Your task to perform on an android device: toggle data saver in the chrome app Image 0: 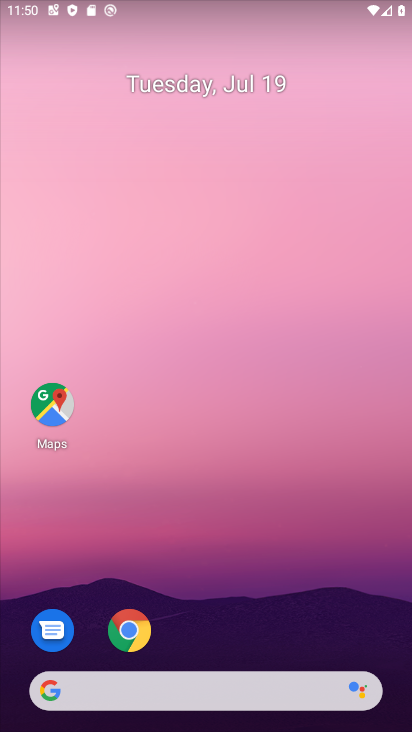
Step 0: drag from (265, 647) to (184, 21)
Your task to perform on an android device: toggle data saver in the chrome app Image 1: 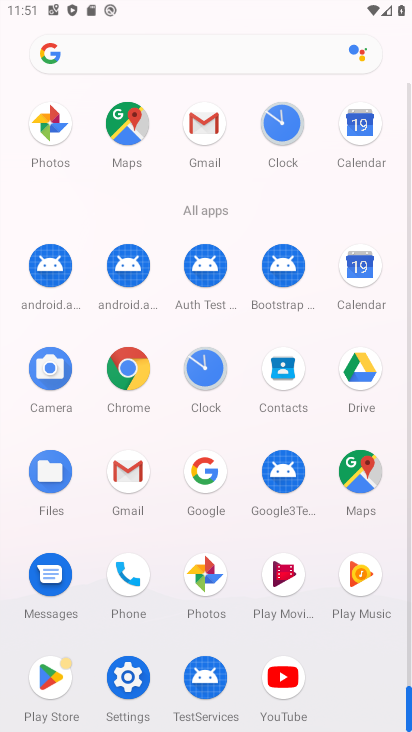
Step 1: click (136, 365)
Your task to perform on an android device: toggle data saver in the chrome app Image 2: 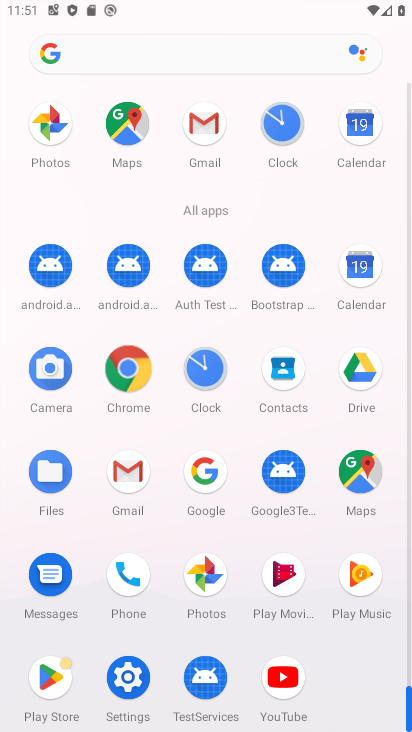
Step 2: click (136, 365)
Your task to perform on an android device: toggle data saver in the chrome app Image 3: 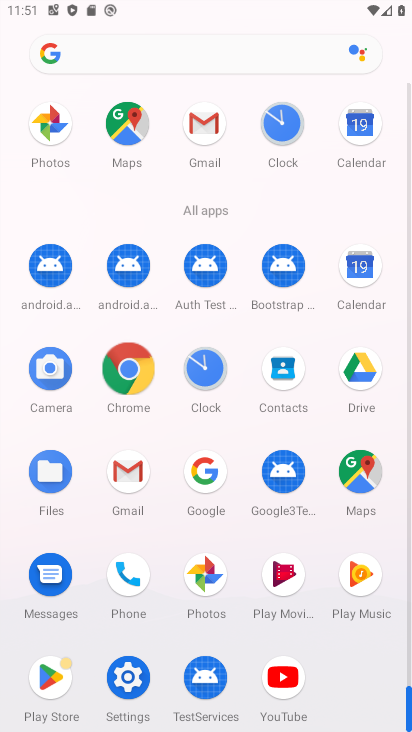
Step 3: click (136, 365)
Your task to perform on an android device: toggle data saver in the chrome app Image 4: 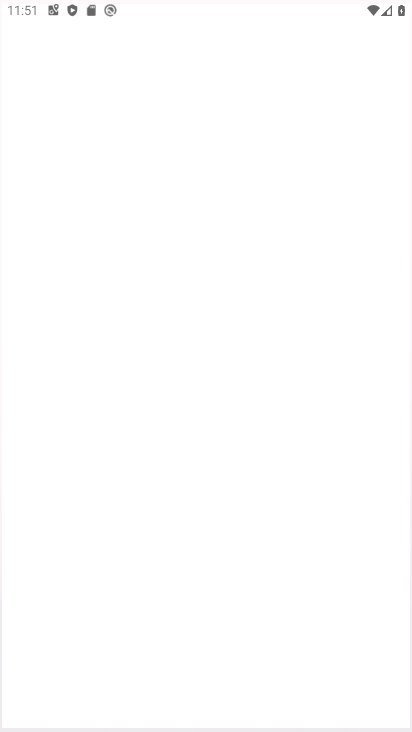
Step 4: click (135, 365)
Your task to perform on an android device: toggle data saver in the chrome app Image 5: 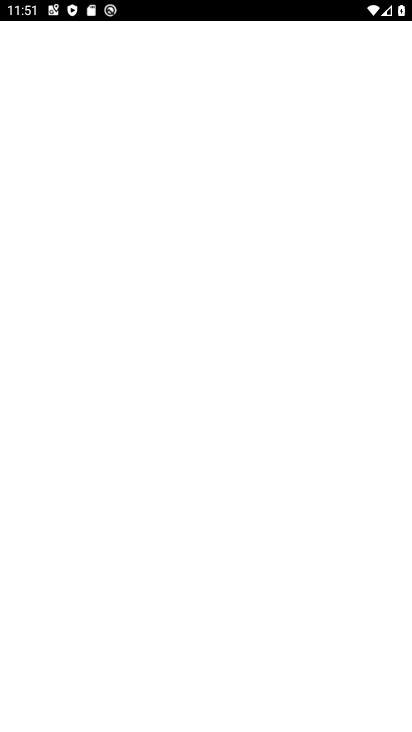
Step 5: click (135, 364)
Your task to perform on an android device: toggle data saver in the chrome app Image 6: 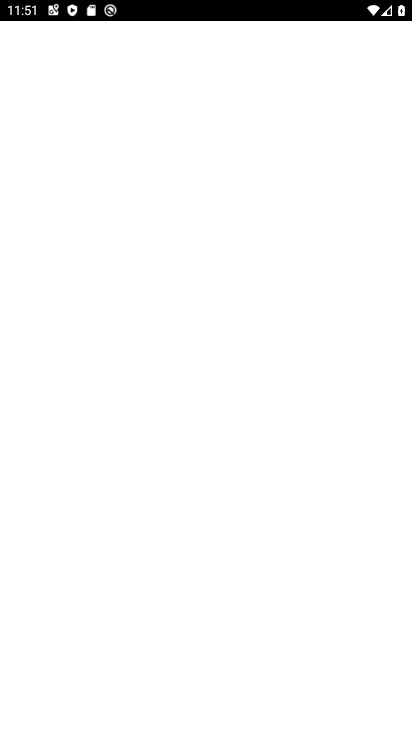
Step 6: click (139, 356)
Your task to perform on an android device: toggle data saver in the chrome app Image 7: 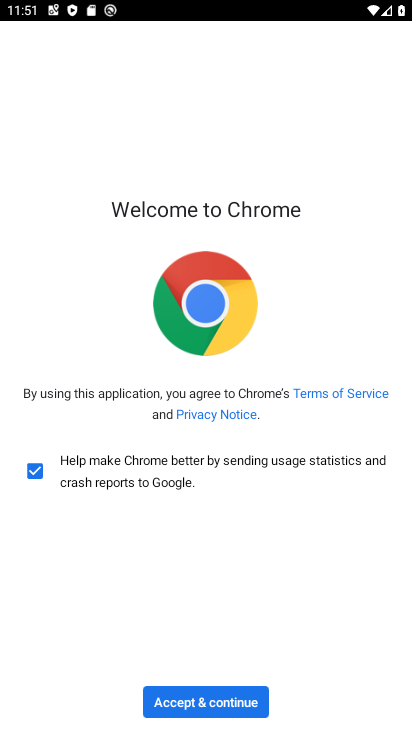
Step 7: click (205, 685)
Your task to perform on an android device: toggle data saver in the chrome app Image 8: 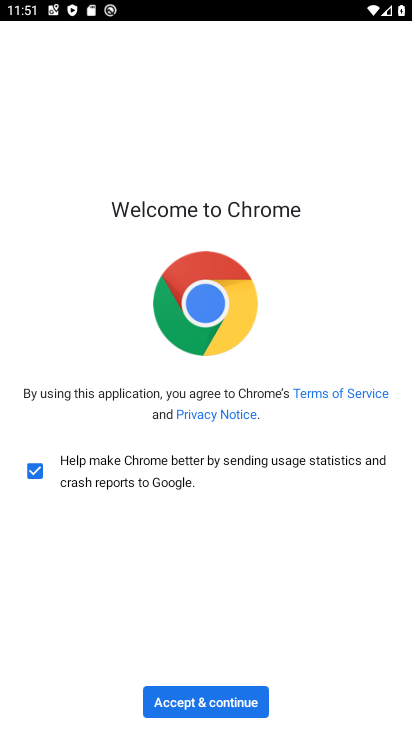
Step 8: click (214, 705)
Your task to perform on an android device: toggle data saver in the chrome app Image 9: 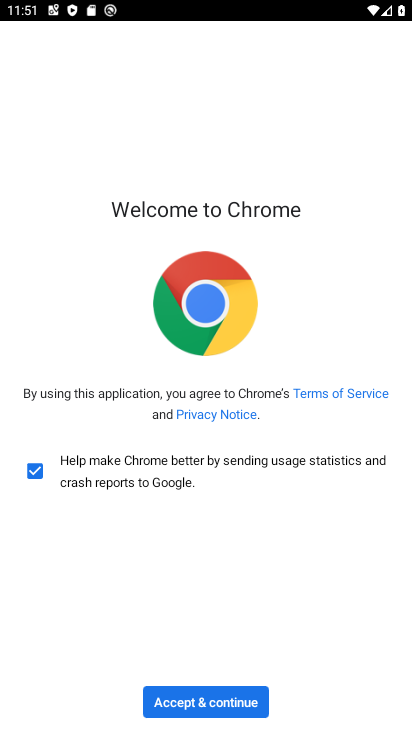
Step 9: click (214, 705)
Your task to perform on an android device: toggle data saver in the chrome app Image 10: 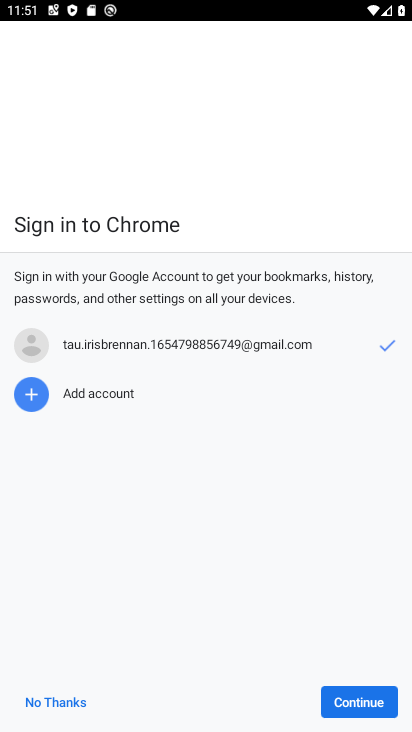
Step 10: click (218, 686)
Your task to perform on an android device: toggle data saver in the chrome app Image 11: 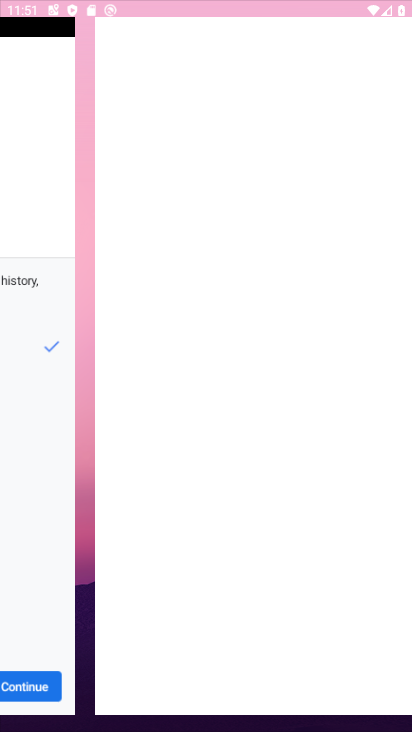
Step 11: click (219, 688)
Your task to perform on an android device: toggle data saver in the chrome app Image 12: 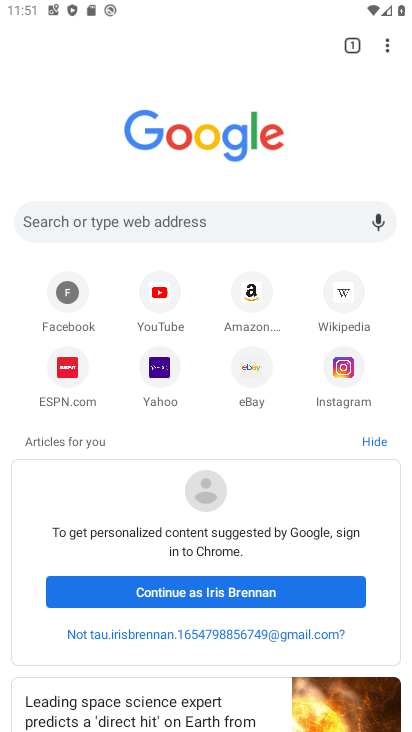
Step 12: drag from (387, 48) to (223, 379)
Your task to perform on an android device: toggle data saver in the chrome app Image 13: 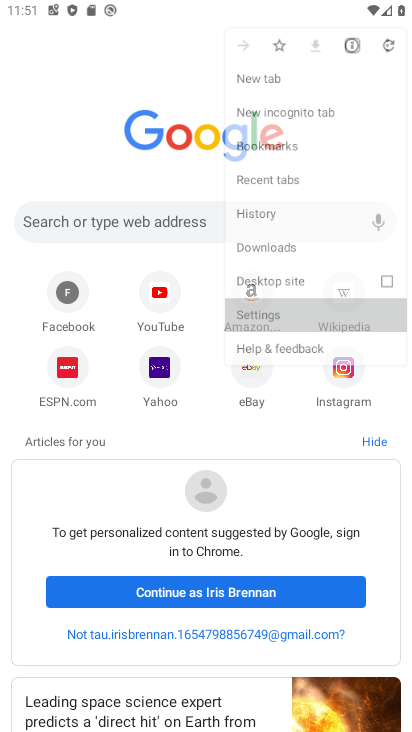
Step 13: click (223, 379)
Your task to perform on an android device: toggle data saver in the chrome app Image 14: 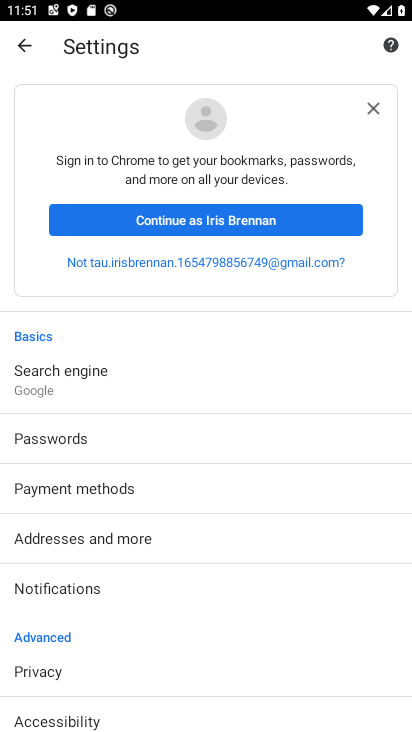
Step 14: drag from (59, 577) to (75, 226)
Your task to perform on an android device: toggle data saver in the chrome app Image 15: 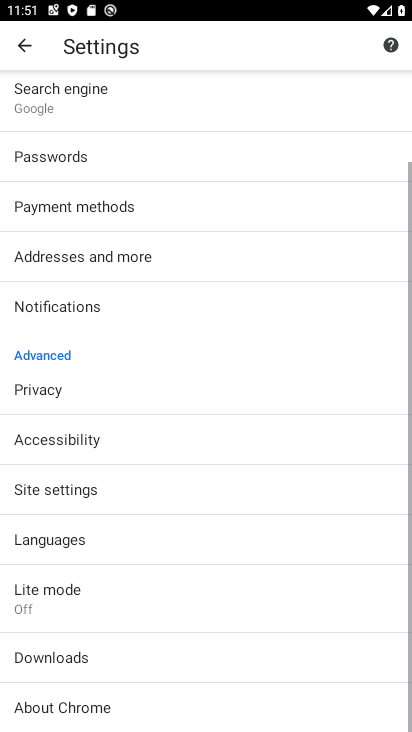
Step 15: drag from (130, 502) to (117, 249)
Your task to perform on an android device: toggle data saver in the chrome app Image 16: 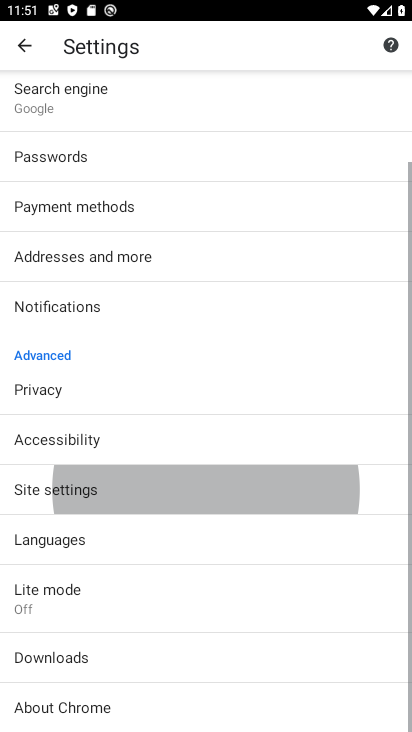
Step 16: drag from (174, 506) to (149, 276)
Your task to perform on an android device: toggle data saver in the chrome app Image 17: 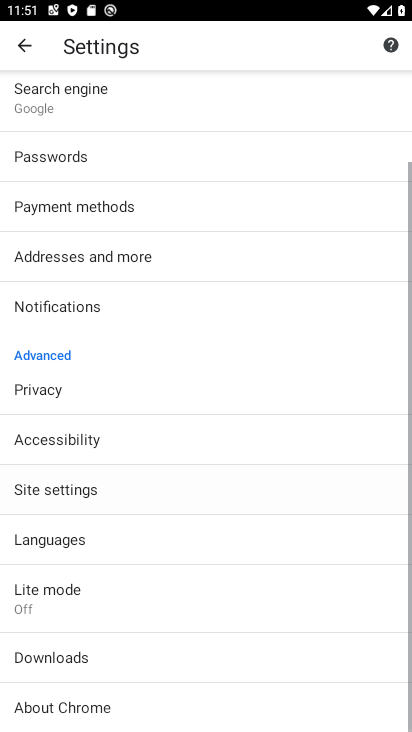
Step 17: drag from (109, 413) to (141, 211)
Your task to perform on an android device: toggle data saver in the chrome app Image 18: 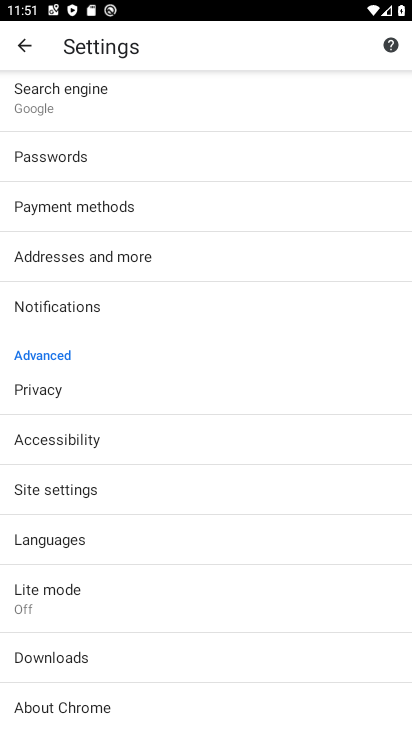
Step 18: click (42, 573)
Your task to perform on an android device: toggle data saver in the chrome app Image 19: 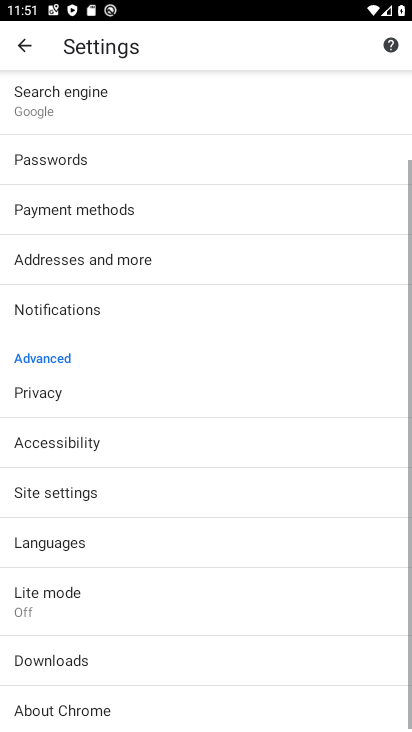
Step 19: click (72, 576)
Your task to perform on an android device: toggle data saver in the chrome app Image 20: 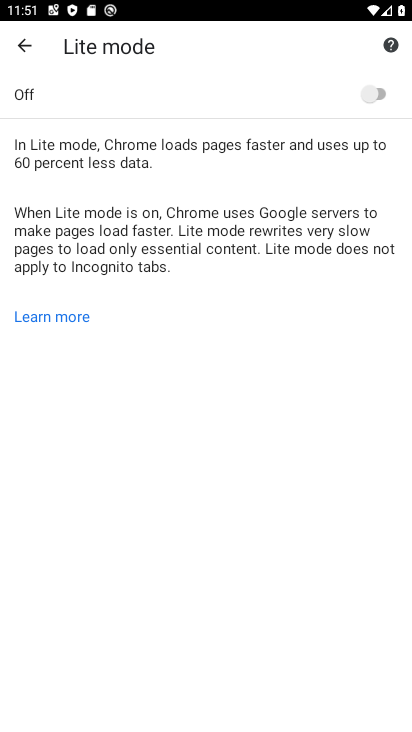
Step 20: click (368, 88)
Your task to perform on an android device: toggle data saver in the chrome app Image 21: 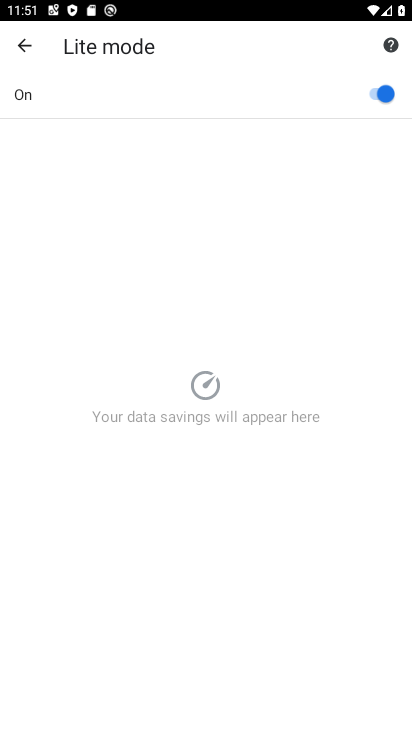
Step 21: task complete